Your task to perform on an android device: Open settings on Google Maps Image 0: 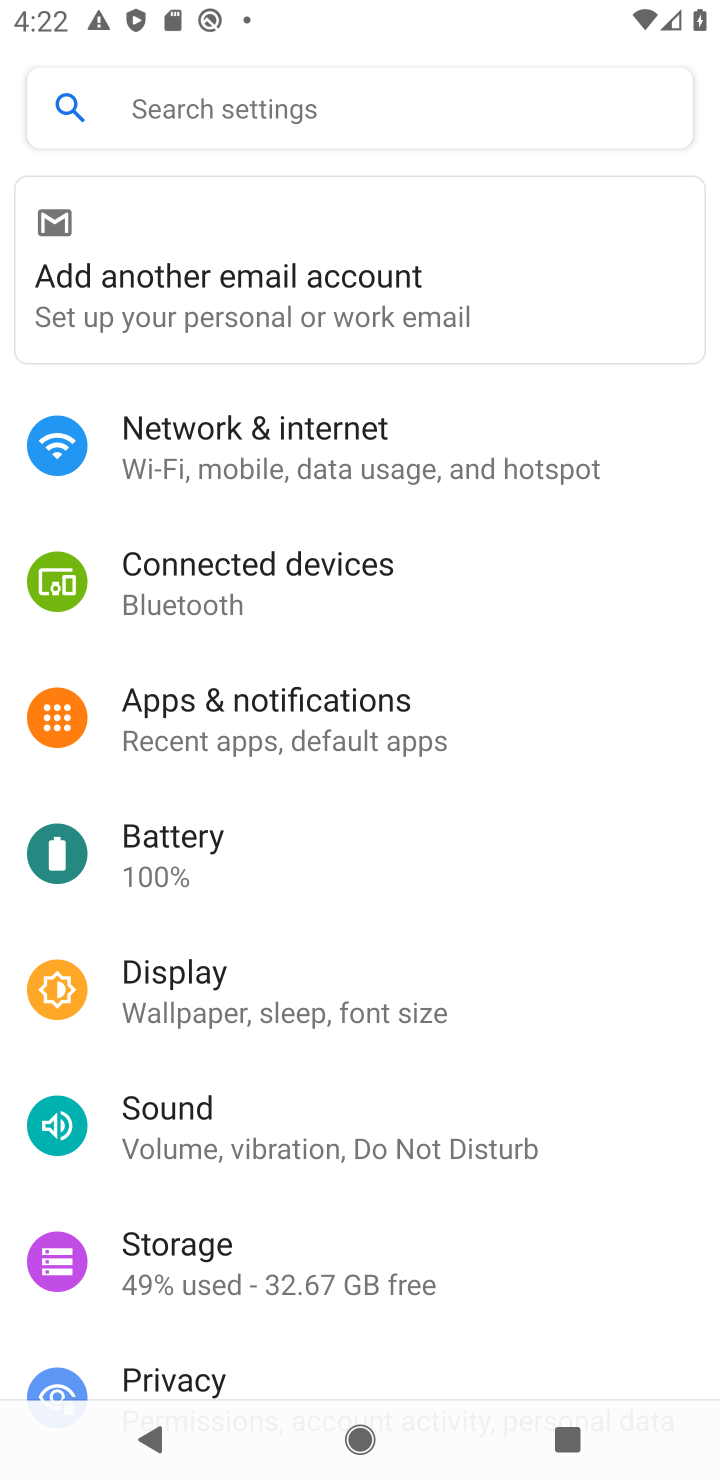
Step 0: press home button
Your task to perform on an android device: Open settings on Google Maps Image 1: 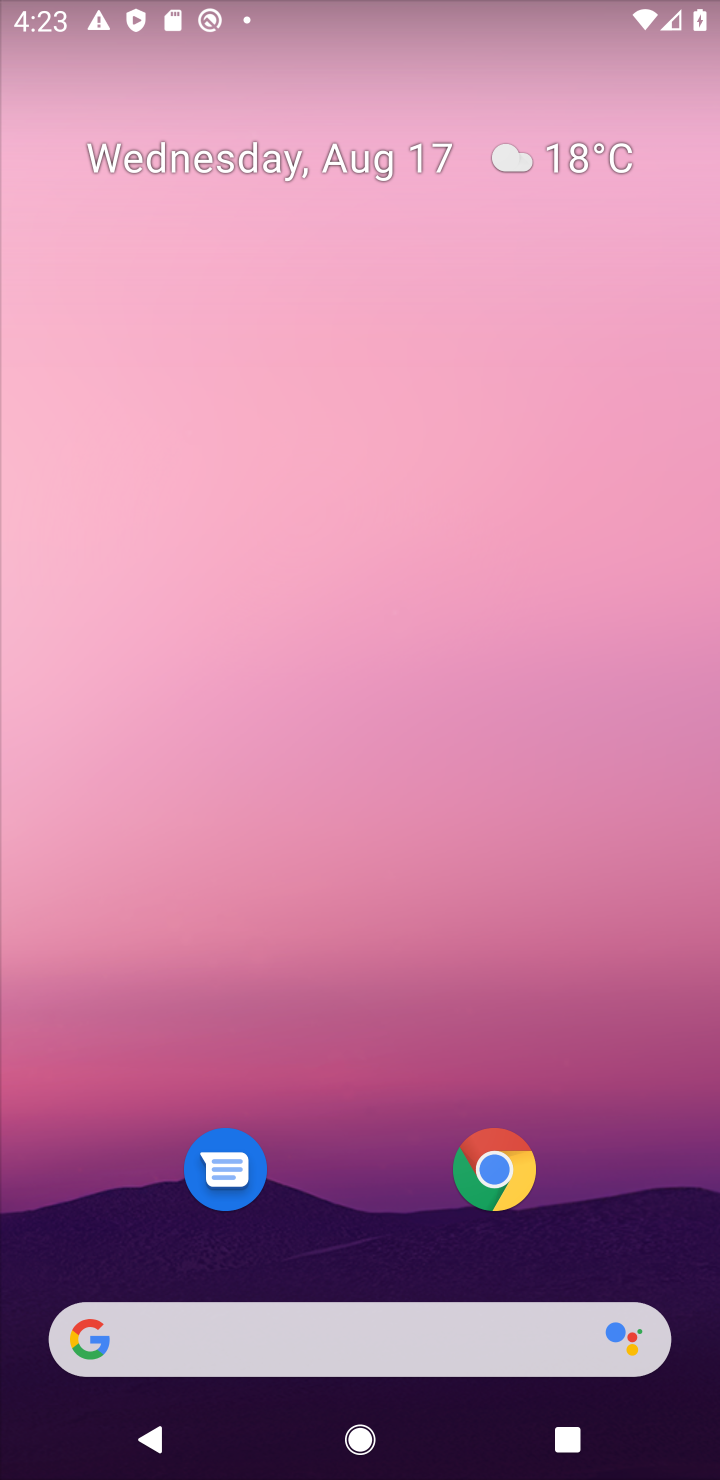
Step 1: drag from (255, 864) to (221, 350)
Your task to perform on an android device: Open settings on Google Maps Image 2: 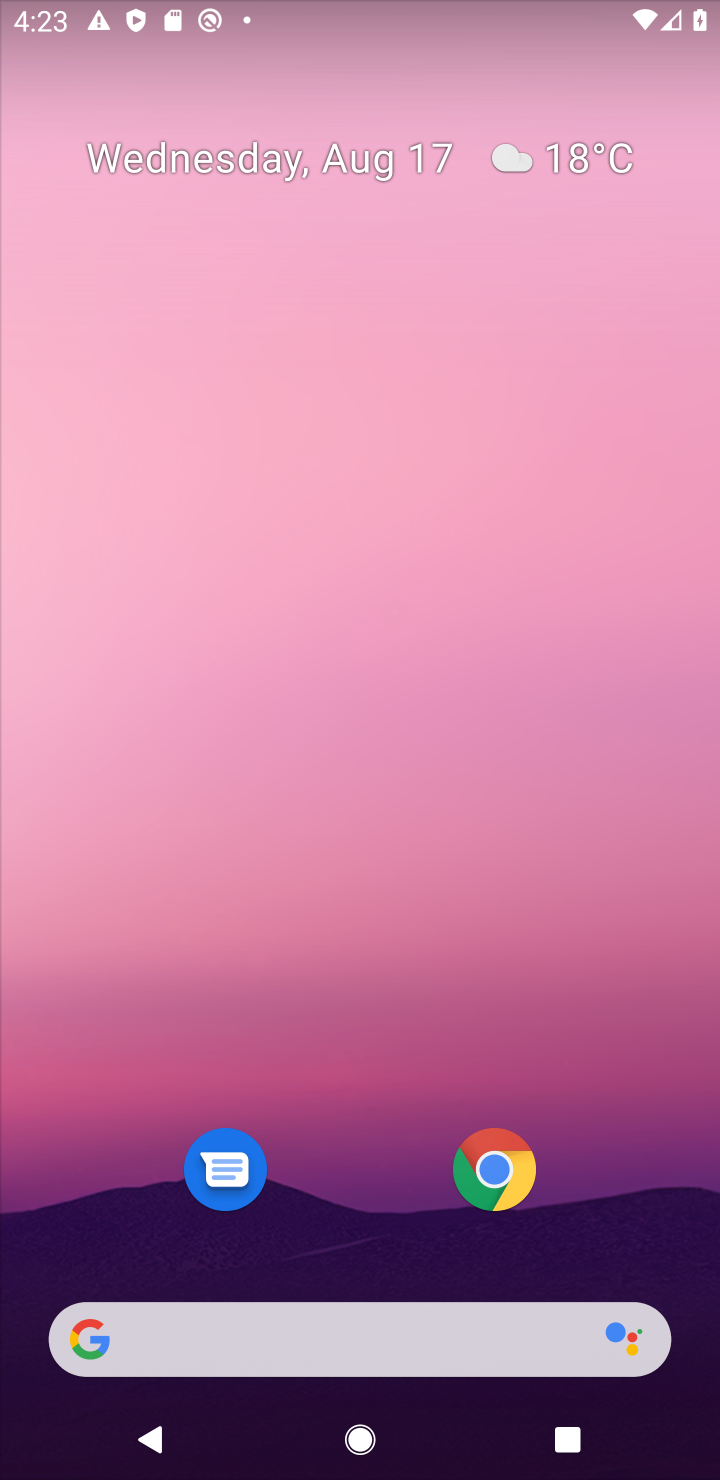
Step 2: drag from (366, 1236) to (393, 387)
Your task to perform on an android device: Open settings on Google Maps Image 3: 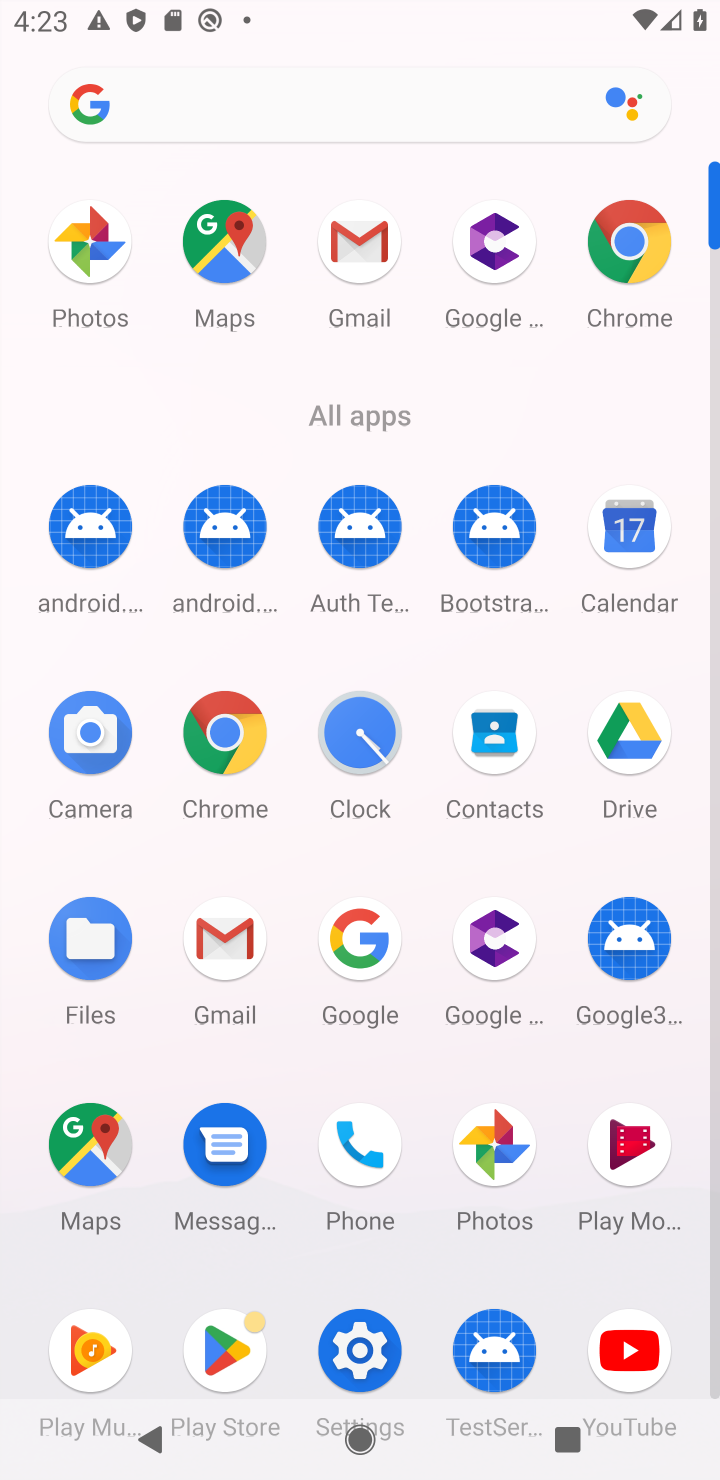
Step 3: click (69, 1180)
Your task to perform on an android device: Open settings on Google Maps Image 4: 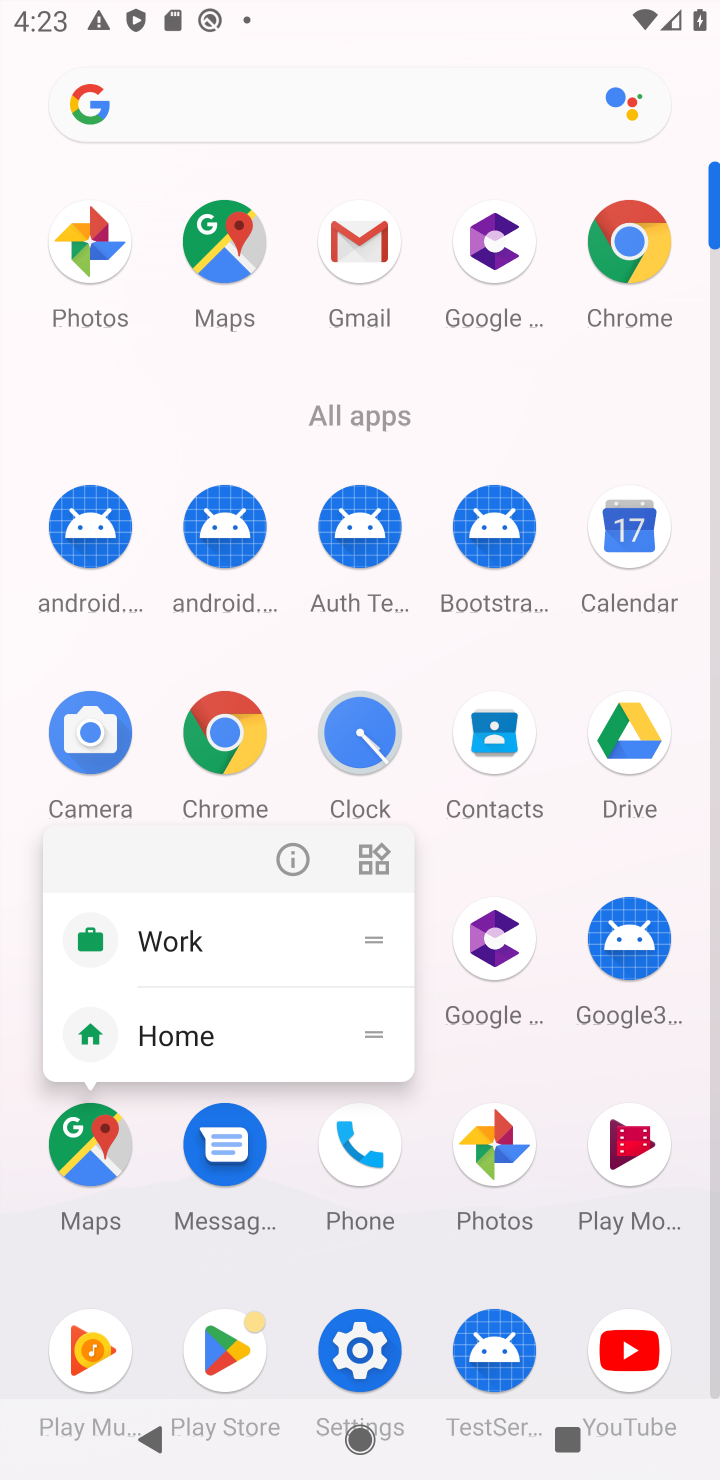
Step 4: click (74, 1175)
Your task to perform on an android device: Open settings on Google Maps Image 5: 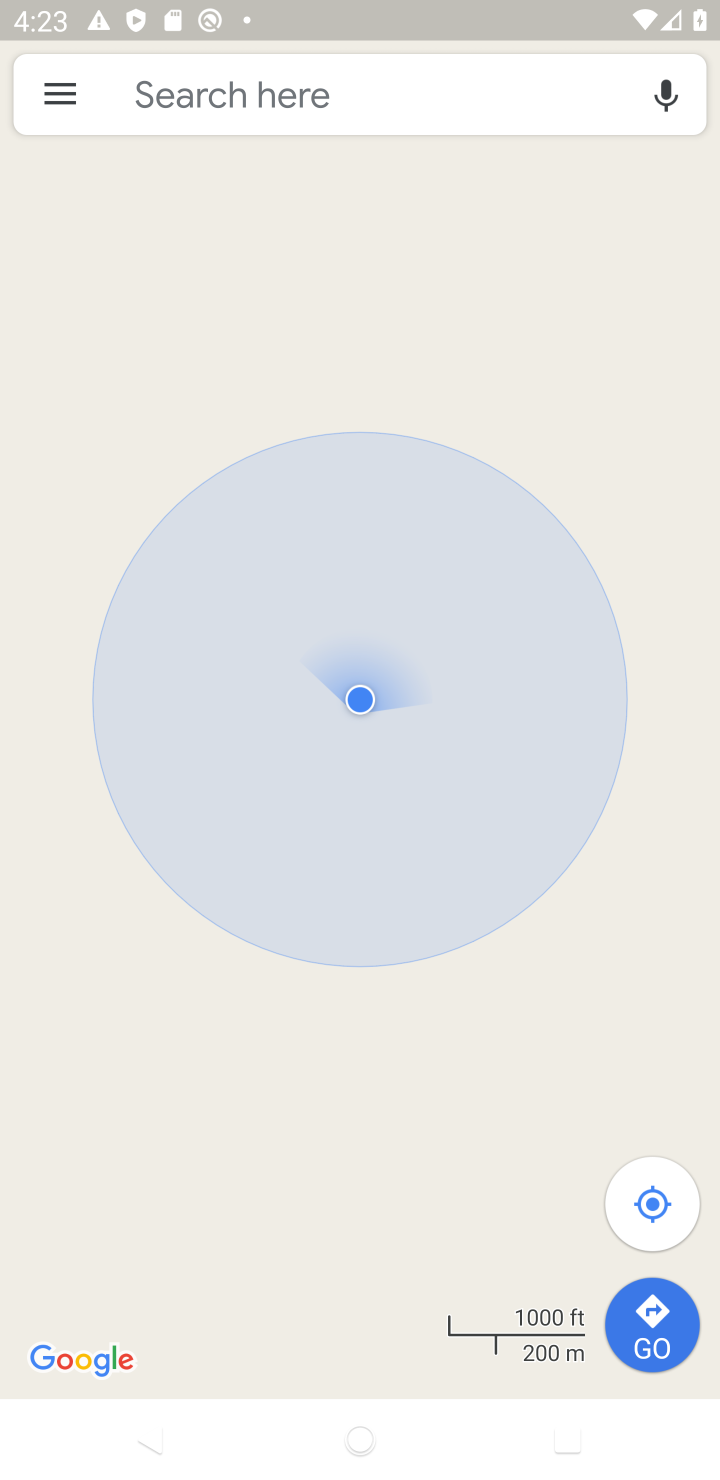
Step 5: click (56, 110)
Your task to perform on an android device: Open settings on Google Maps Image 6: 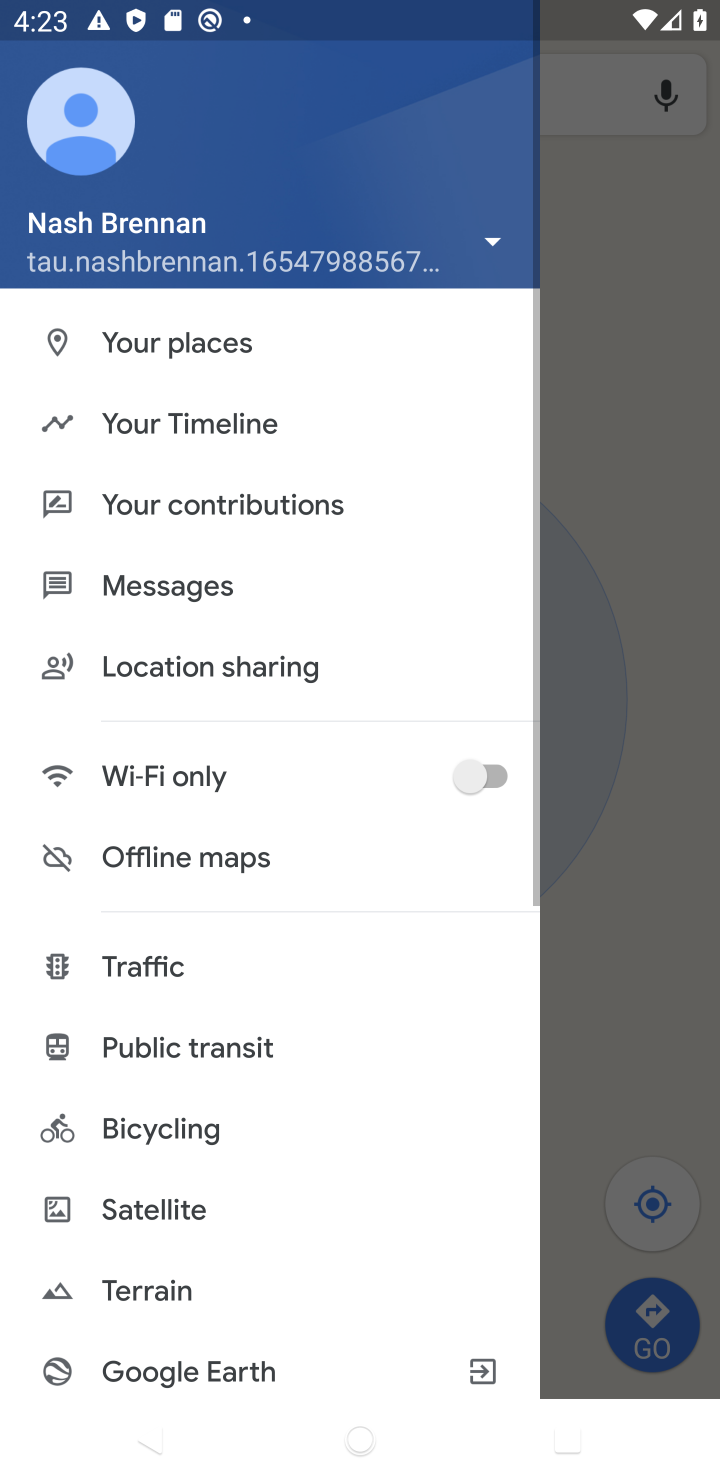
Step 6: click (54, 112)
Your task to perform on an android device: Open settings on Google Maps Image 7: 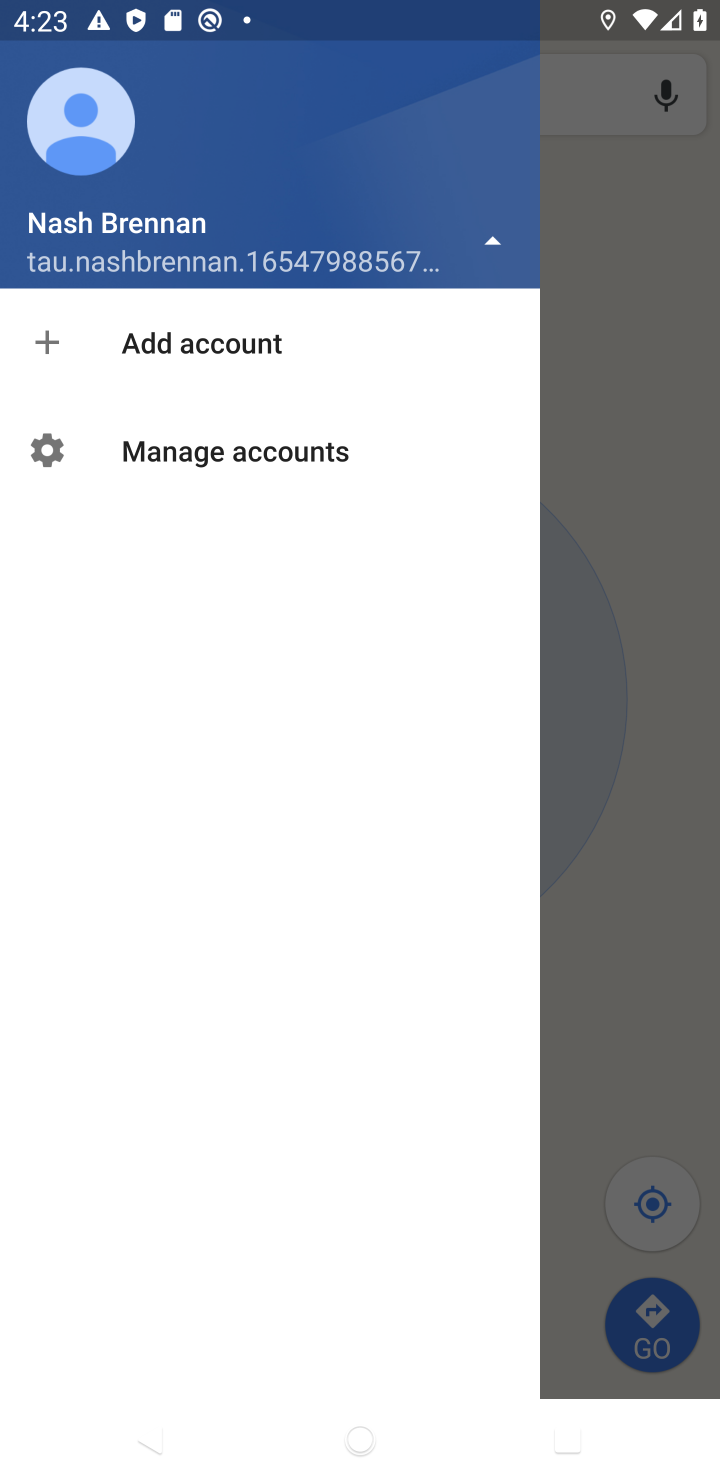
Step 7: click (181, 1246)
Your task to perform on an android device: Open settings on Google Maps Image 8: 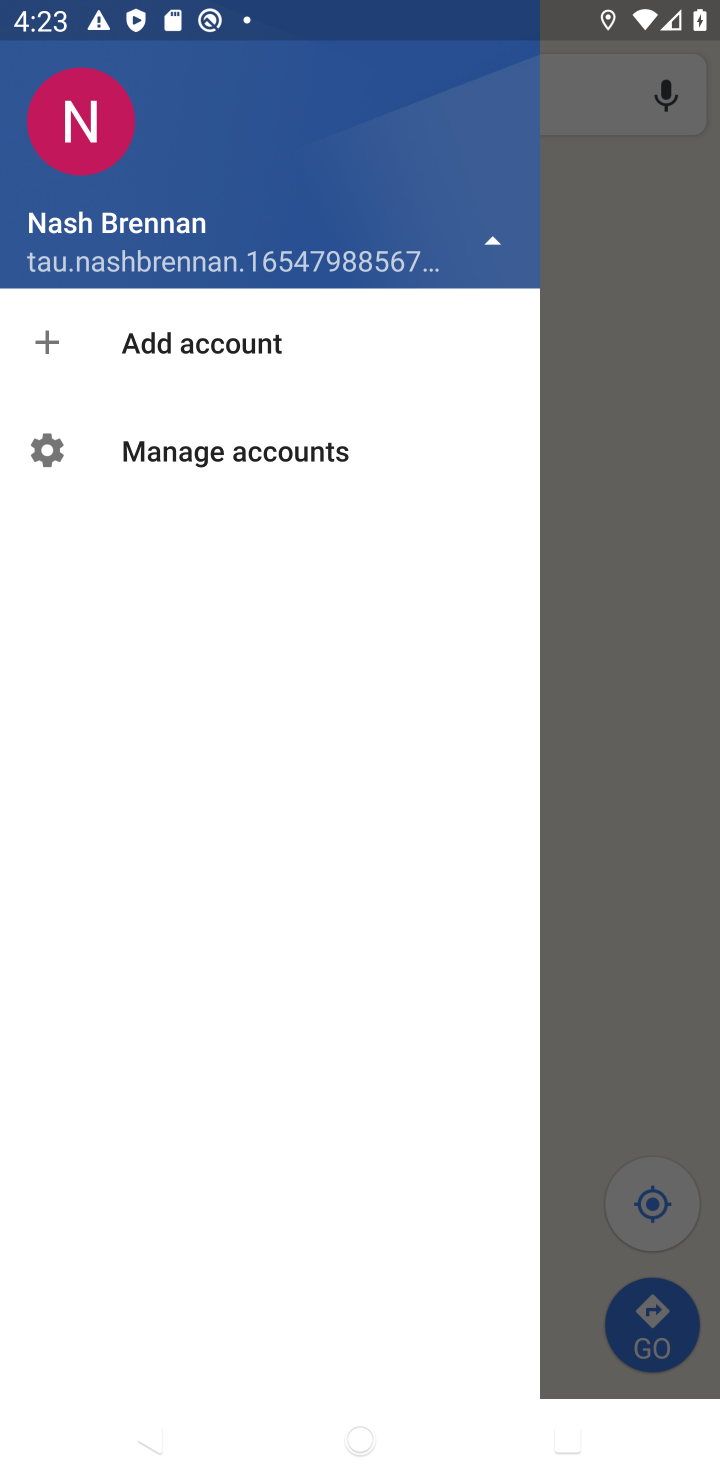
Step 8: press back button
Your task to perform on an android device: Open settings on Google Maps Image 9: 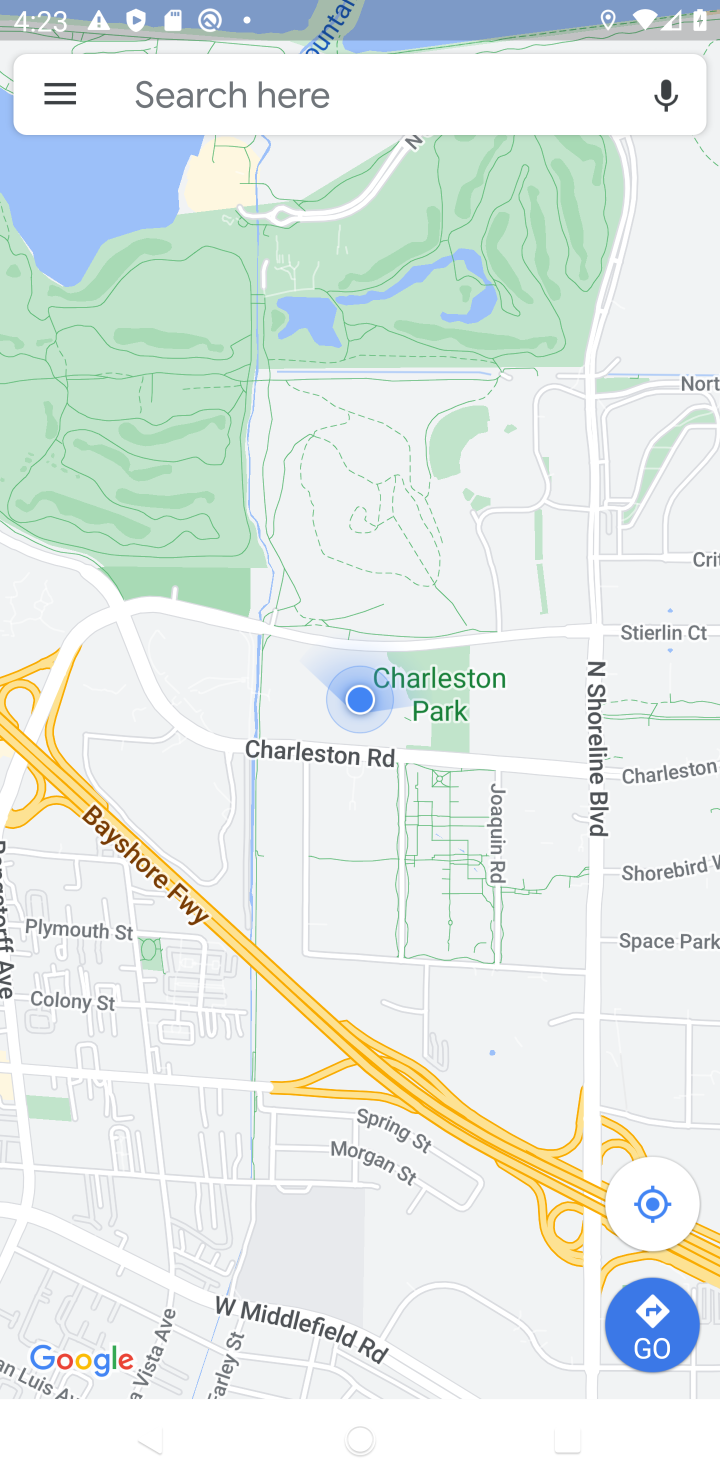
Step 9: click (70, 110)
Your task to perform on an android device: Open settings on Google Maps Image 10: 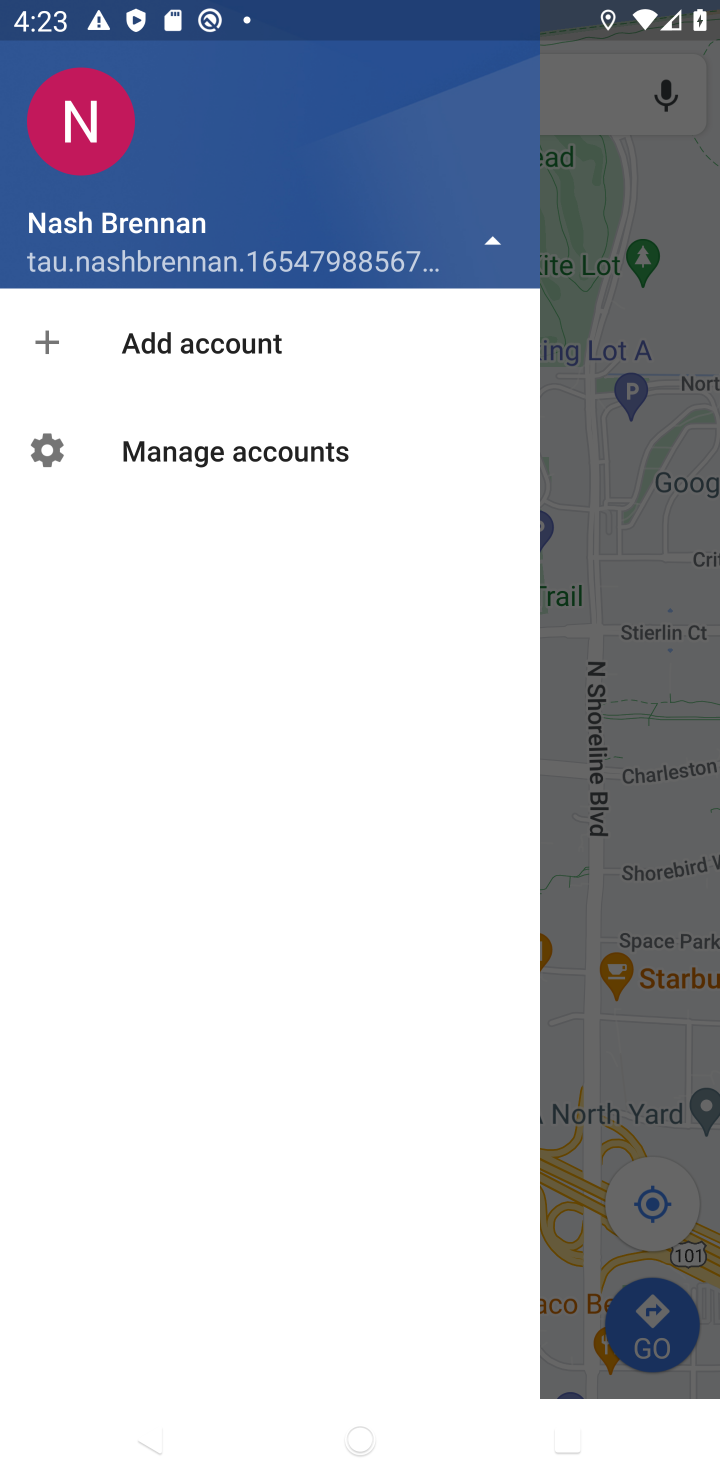
Step 10: drag from (323, 1155) to (403, 387)
Your task to perform on an android device: Open settings on Google Maps Image 11: 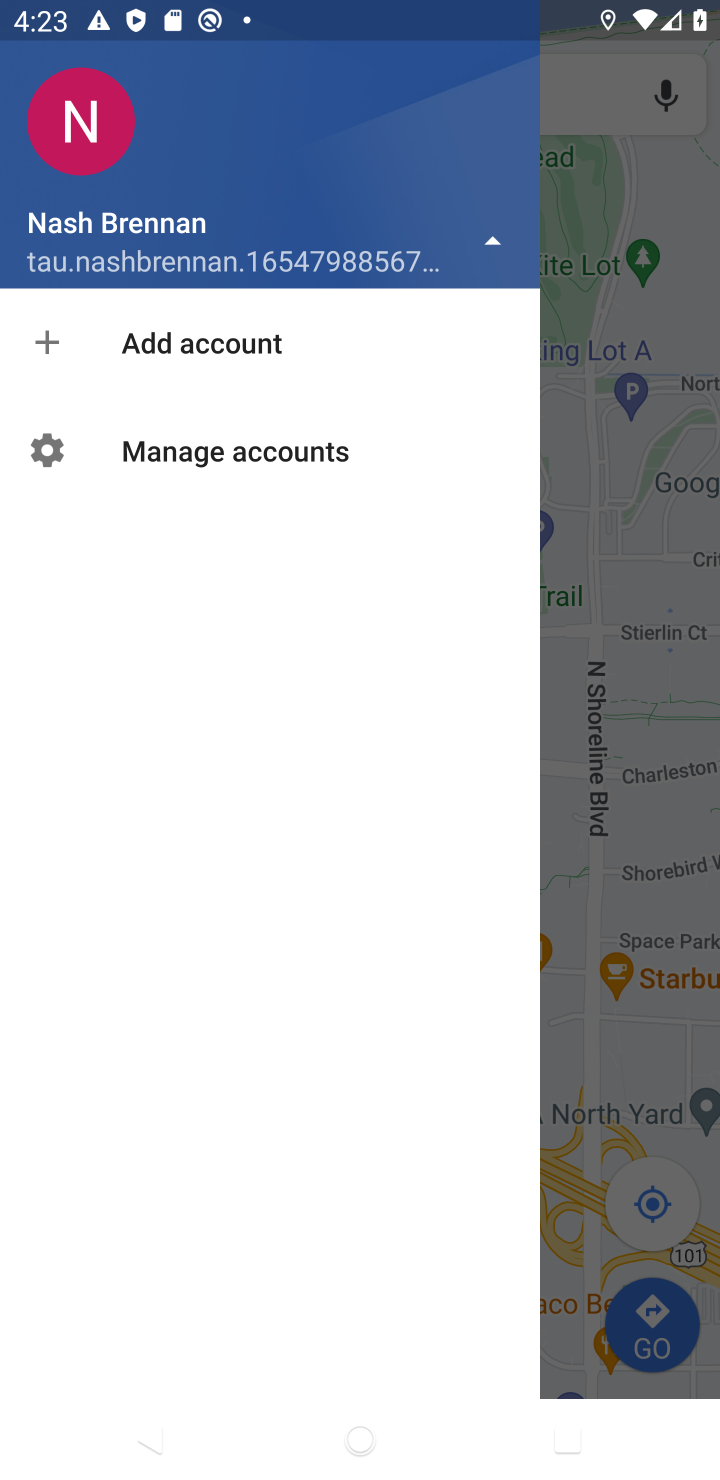
Step 11: press back button
Your task to perform on an android device: Open settings on Google Maps Image 12: 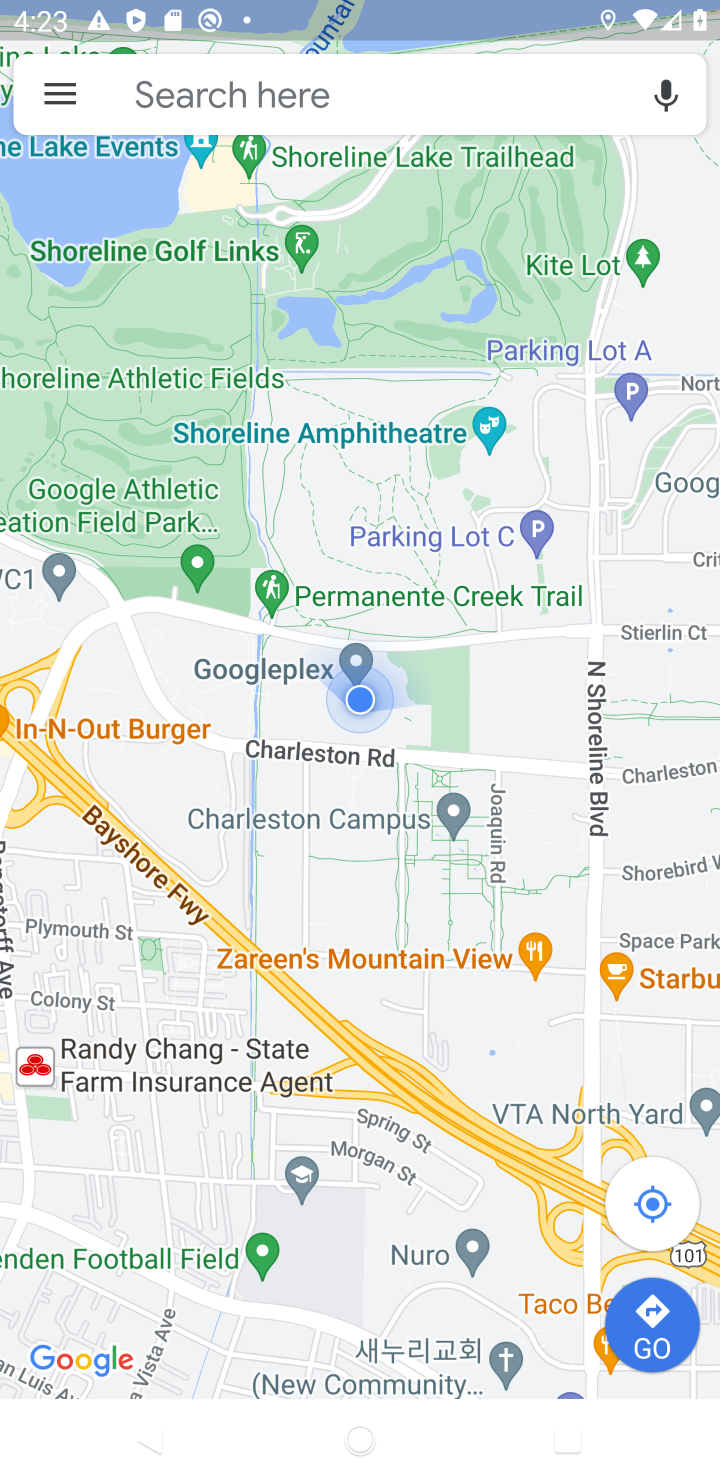
Step 12: click (37, 87)
Your task to perform on an android device: Open settings on Google Maps Image 13: 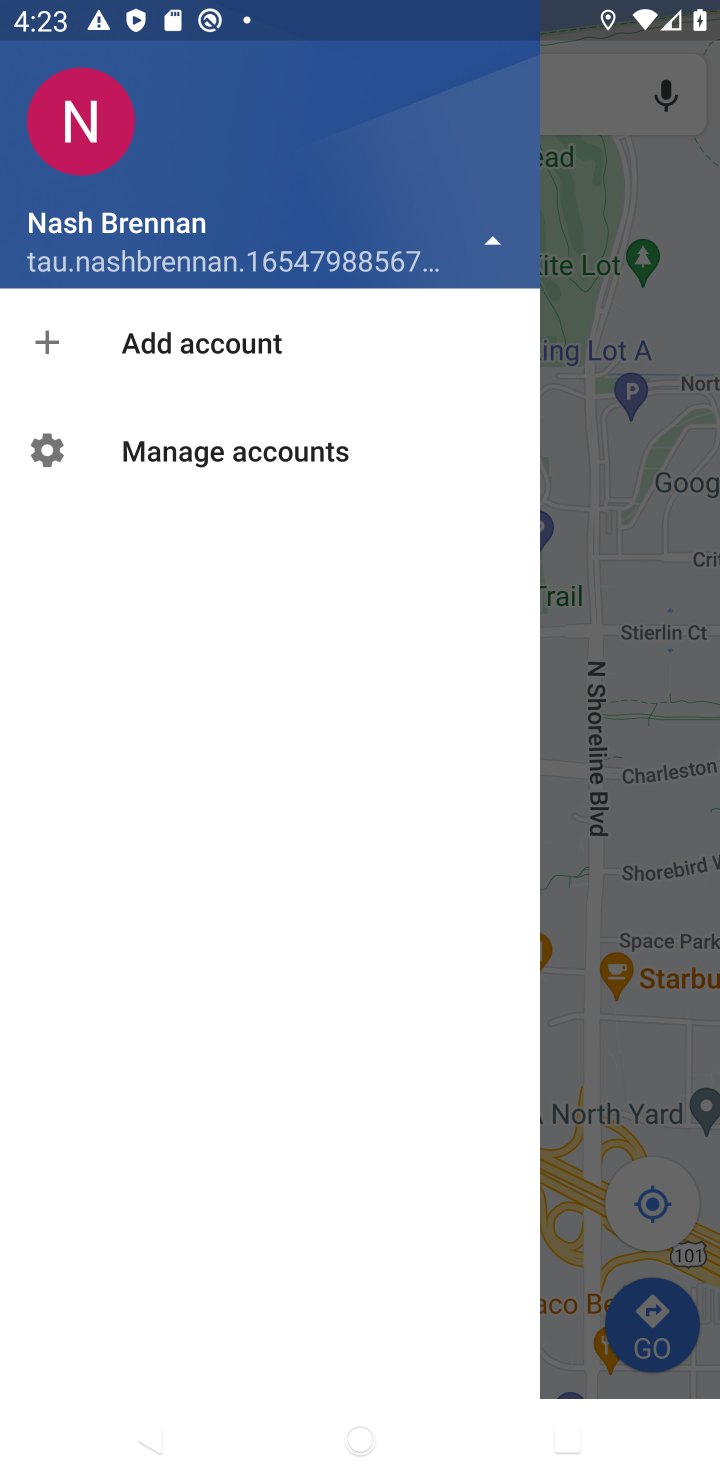
Step 13: click (64, 127)
Your task to perform on an android device: Open settings on Google Maps Image 14: 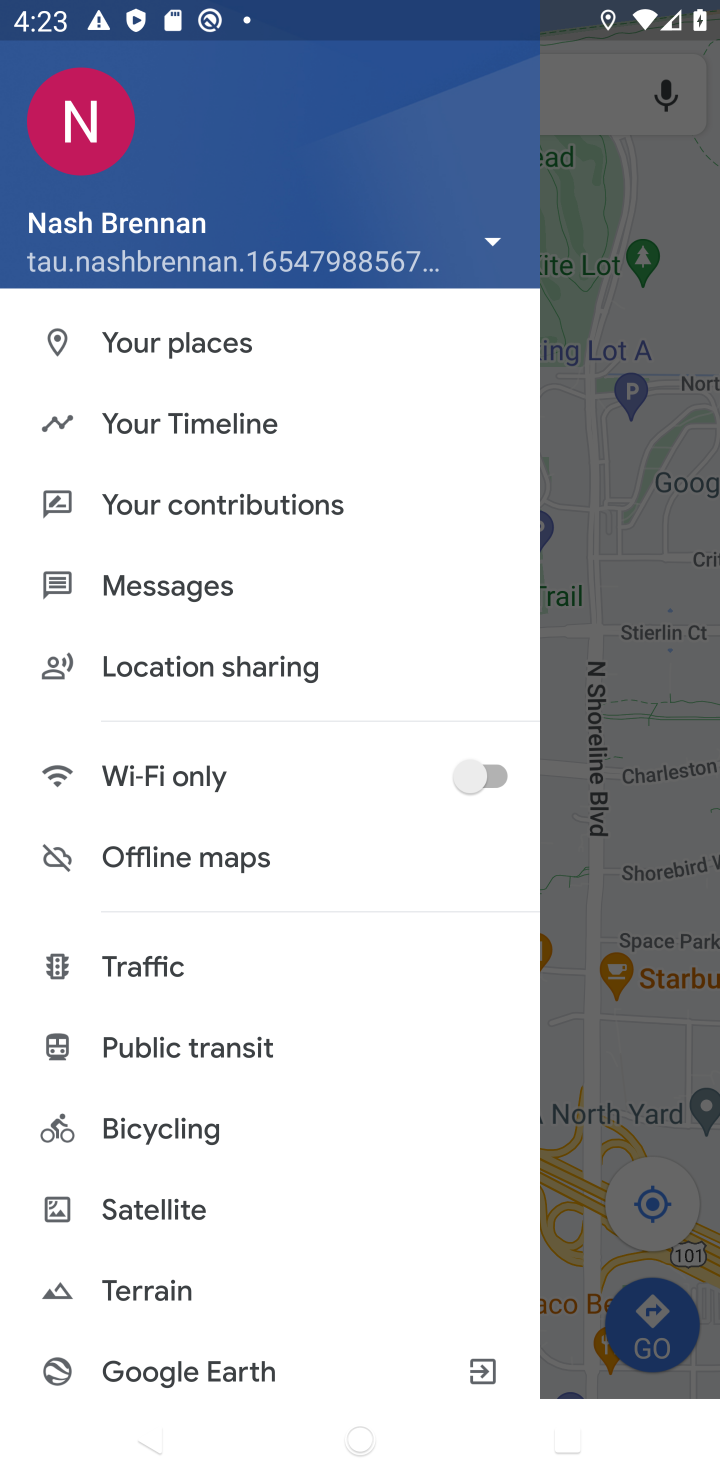
Step 14: drag from (237, 1170) to (403, 528)
Your task to perform on an android device: Open settings on Google Maps Image 15: 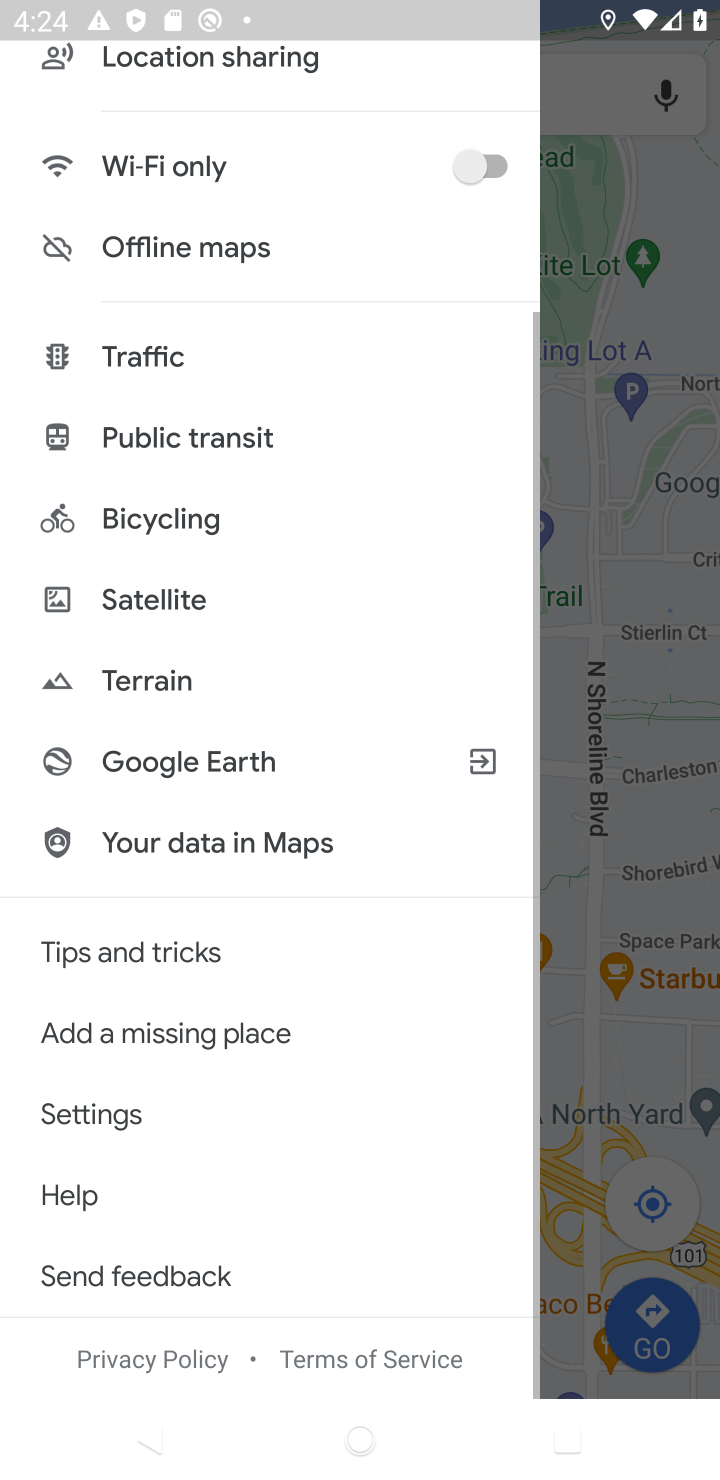
Step 15: click (80, 1115)
Your task to perform on an android device: Open settings on Google Maps Image 16: 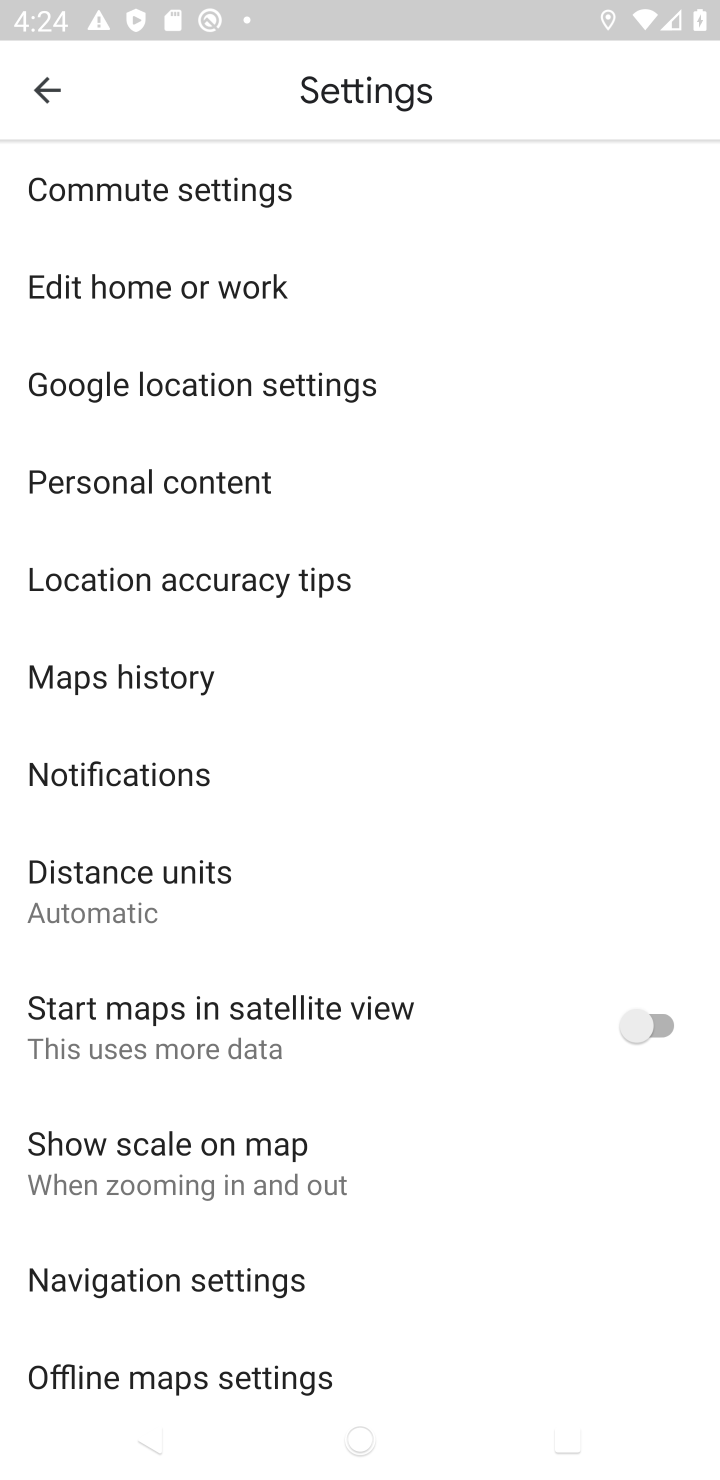
Step 16: task complete